Your task to perform on an android device: turn on showing notifications on the lock screen Image 0: 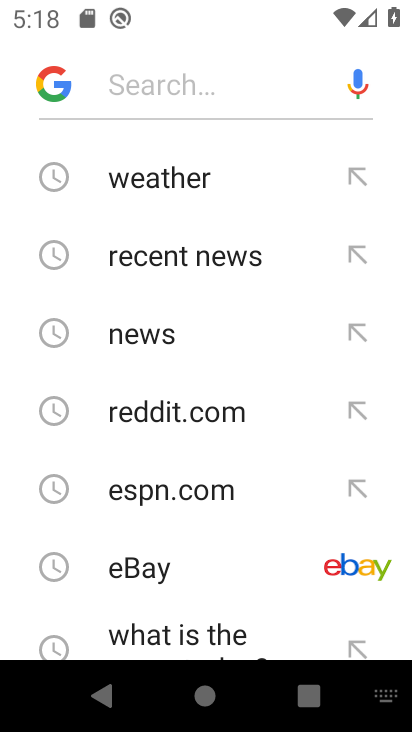
Step 0: press home button
Your task to perform on an android device: turn on showing notifications on the lock screen Image 1: 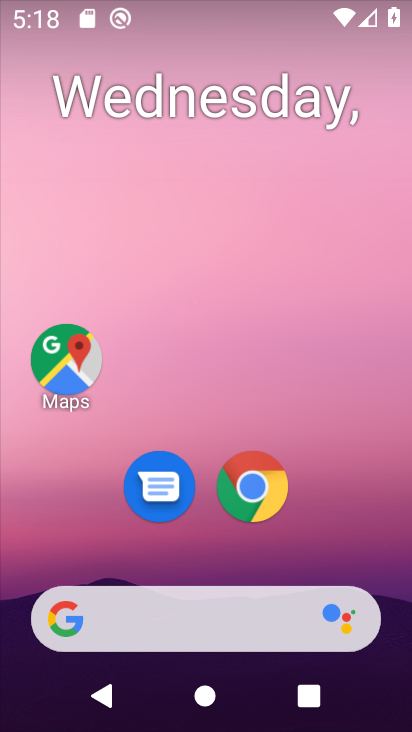
Step 1: drag from (199, 497) to (174, 4)
Your task to perform on an android device: turn on showing notifications on the lock screen Image 2: 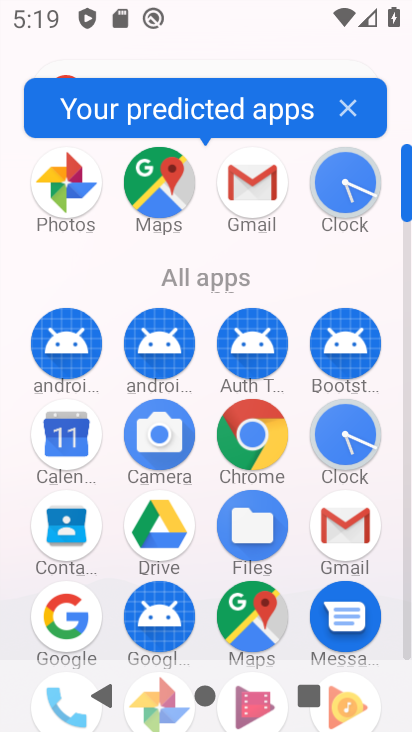
Step 2: drag from (211, 559) to (215, 207)
Your task to perform on an android device: turn on showing notifications on the lock screen Image 3: 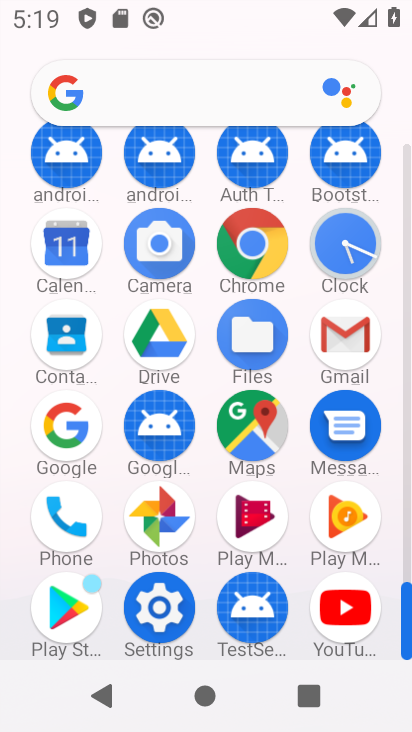
Step 3: click (160, 625)
Your task to perform on an android device: turn on showing notifications on the lock screen Image 4: 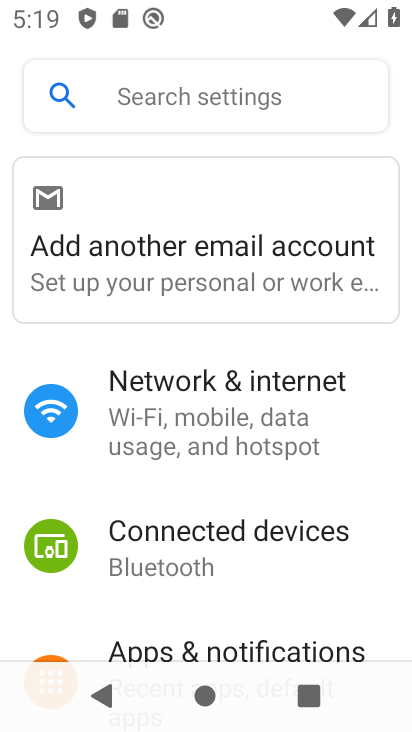
Step 4: drag from (245, 611) to (274, 338)
Your task to perform on an android device: turn on showing notifications on the lock screen Image 5: 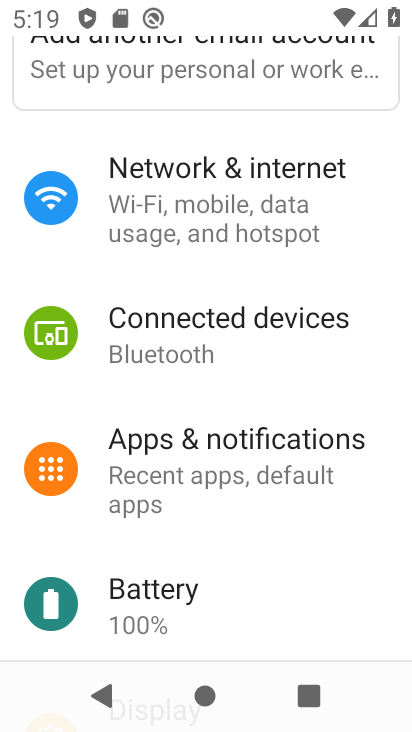
Step 5: click (254, 482)
Your task to perform on an android device: turn on showing notifications on the lock screen Image 6: 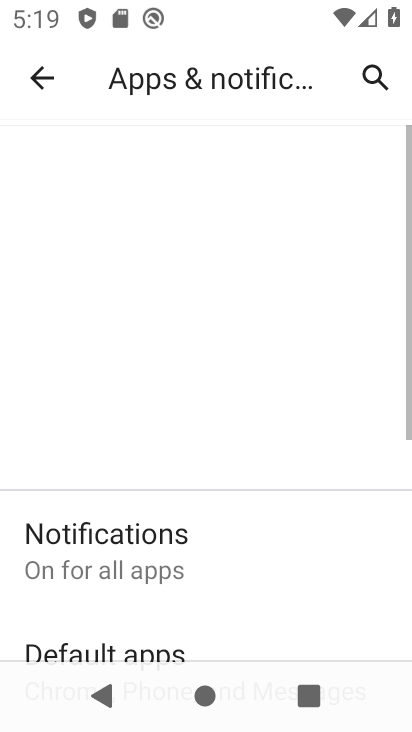
Step 6: drag from (158, 583) to (188, 337)
Your task to perform on an android device: turn on showing notifications on the lock screen Image 7: 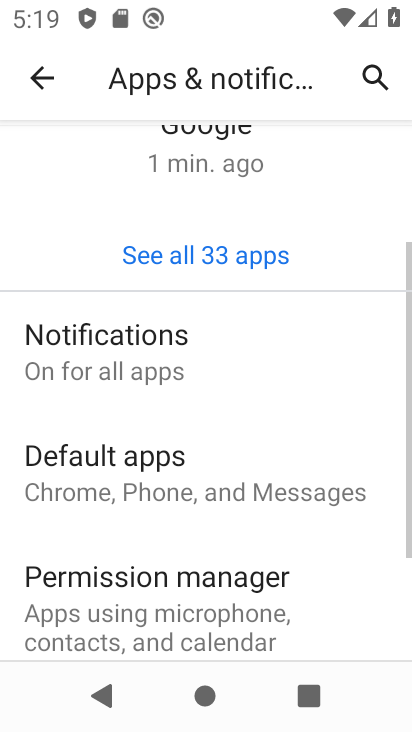
Step 7: click (140, 376)
Your task to perform on an android device: turn on showing notifications on the lock screen Image 8: 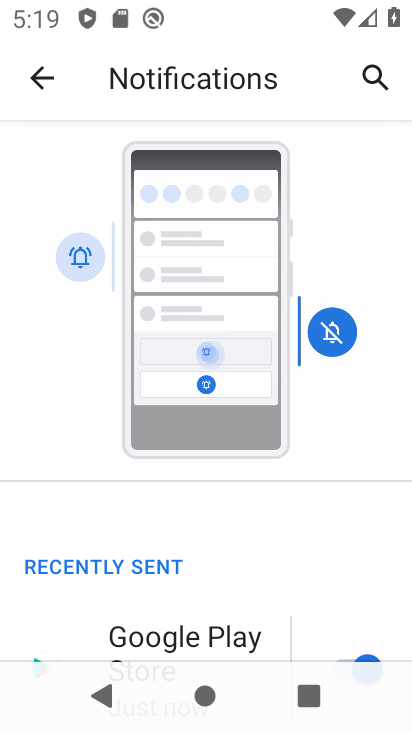
Step 8: drag from (168, 603) to (209, 274)
Your task to perform on an android device: turn on showing notifications on the lock screen Image 9: 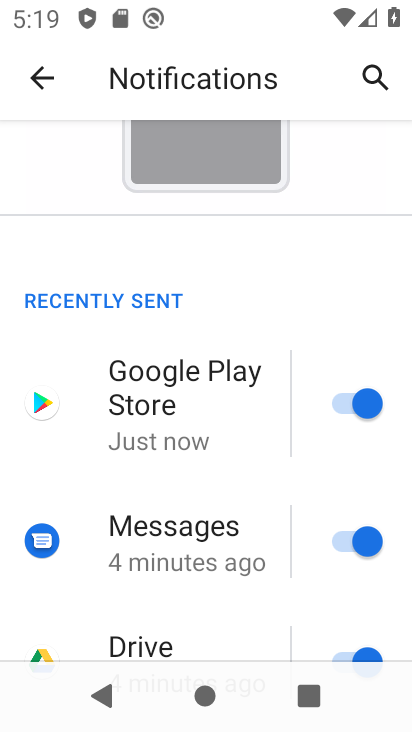
Step 9: drag from (163, 588) to (223, 256)
Your task to perform on an android device: turn on showing notifications on the lock screen Image 10: 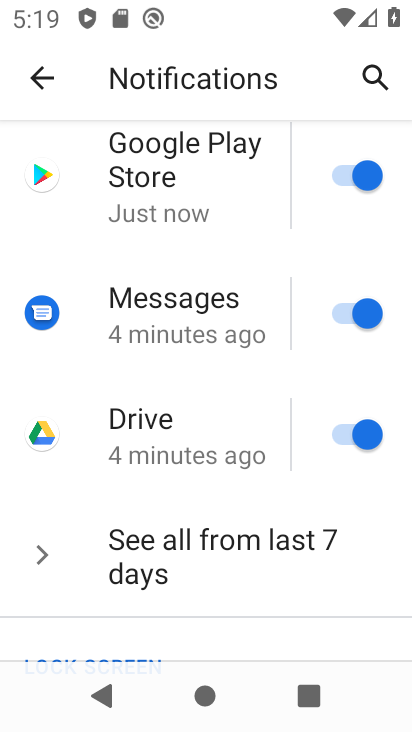
Step 10: drag from (193, 589) to (211, 364)
Your task to perform on an android device: turn on showing notifications on the lock screen Image 11: 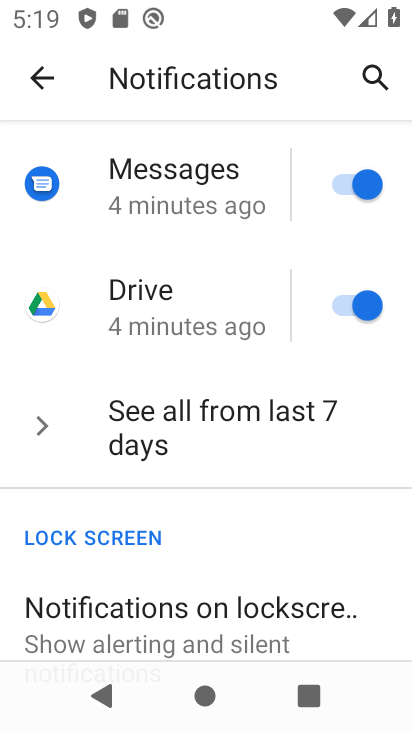
Step 11: click (146, 631)
Your task to perform on an android device: turn on showing notifications on the lock screen Image 12: 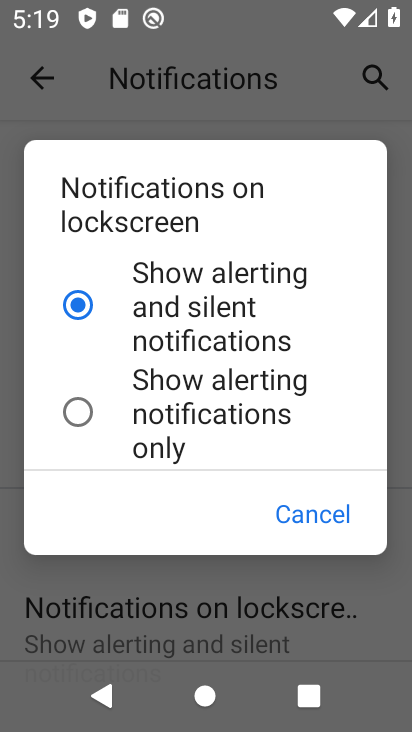
Step 12: task complete